Your task to perform on an android device: turn off picture-in-picture Image 0: 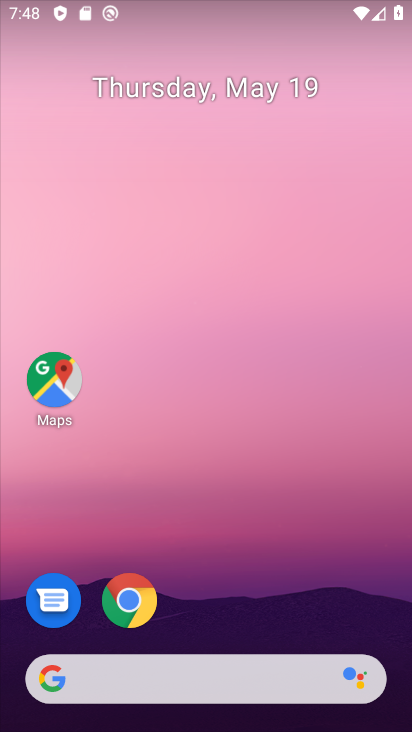
Step 0: drag from (319, 607) to (306, 107)
Your task to perform on an android device: turn off picture-in-picture Image 1: 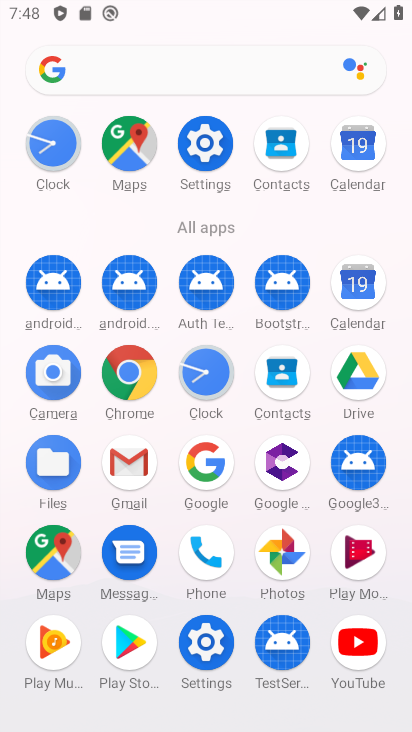
Step 1: click (200, 154)
Your task to perform on an android device: turn off picture-in-picture Image 2: 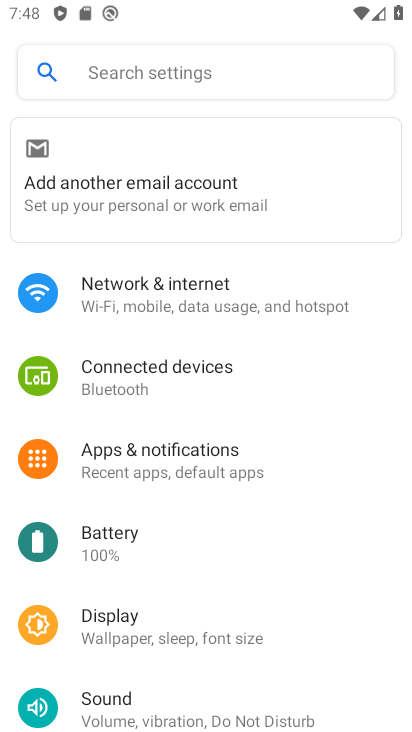
Step 2: click (214, 474)
Your task to perform on an android device: turn off picture-in-picture Image 3: 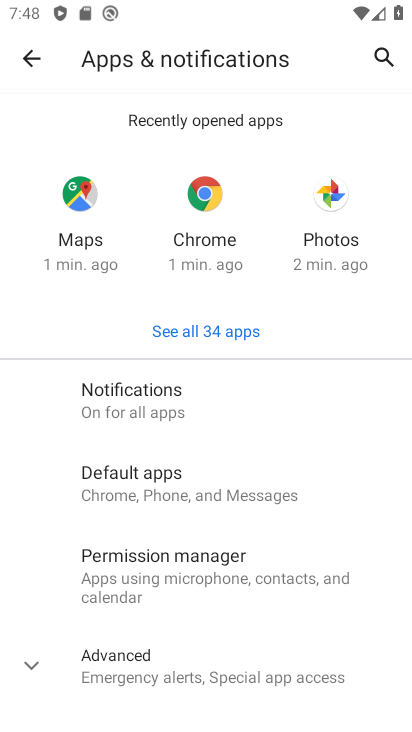
Step 3: click (155, 650)
Your task to perform on an android device: turn off picture-in-picture Image 4: 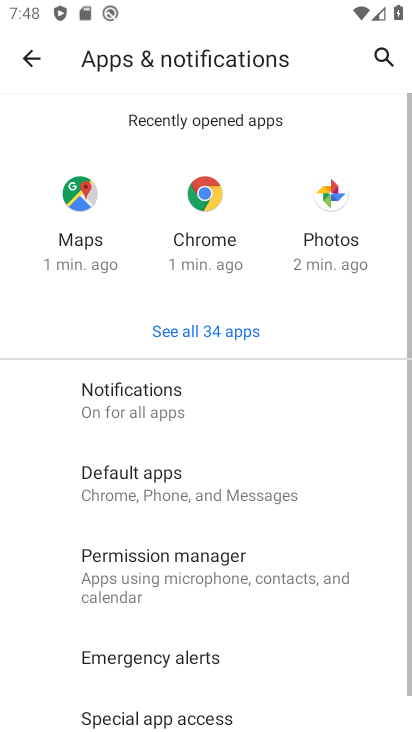
Step 4: drag from (248, 621) to (239, 428)
Your task to perform on an android device: turn off picture-in-picture Image 5: 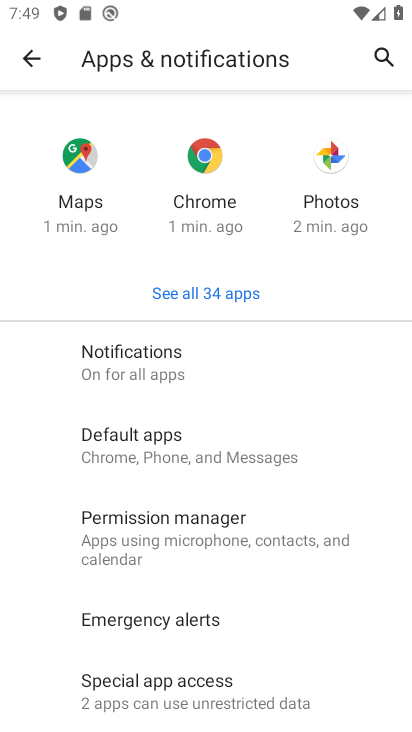
Step 5: click (163, 342)
Your task to perform on an android device: turn off picture-in-picture Image 6: 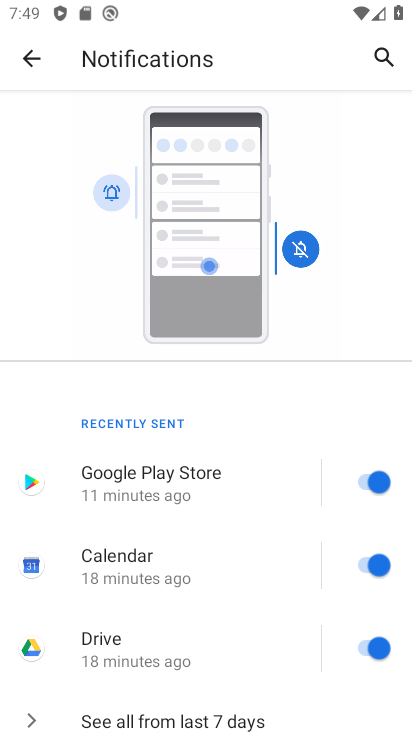
Step 6: drag from (233, 573) to (234, 354)
Your task to perform on an android device: turn off picture-in-picture Image 7: 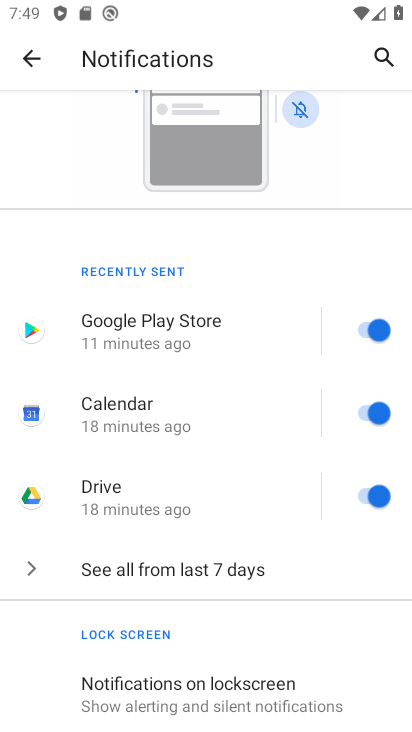
Step 7: drag from (201, 598) to (198, 244)
Your task to perform on an android device: turn off picture-in-picture Image 8: 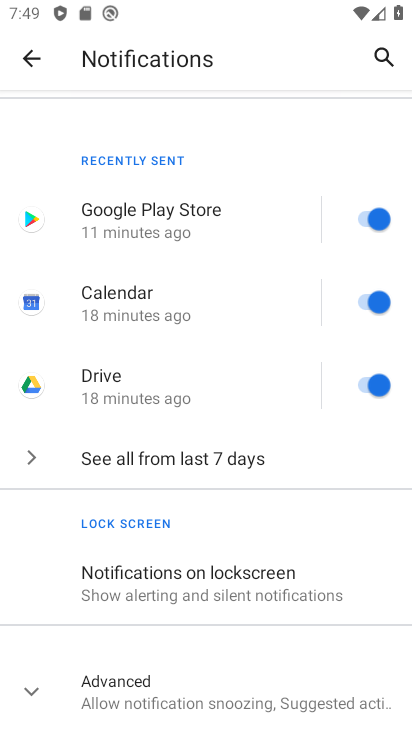
Step 8: click (168, 685)
Your task to perform on an android device: turn off picture-in-picture Image 9: 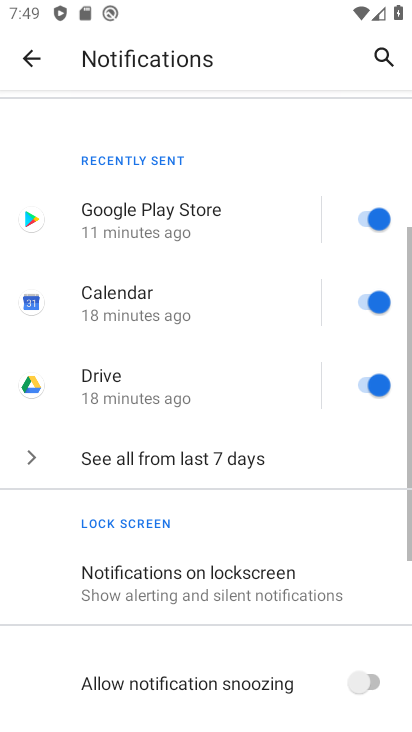
Step 9: drag from (236, 617) to (200, 145)
Your task to perform on an android device: turn off picture-in-picture Image 10: 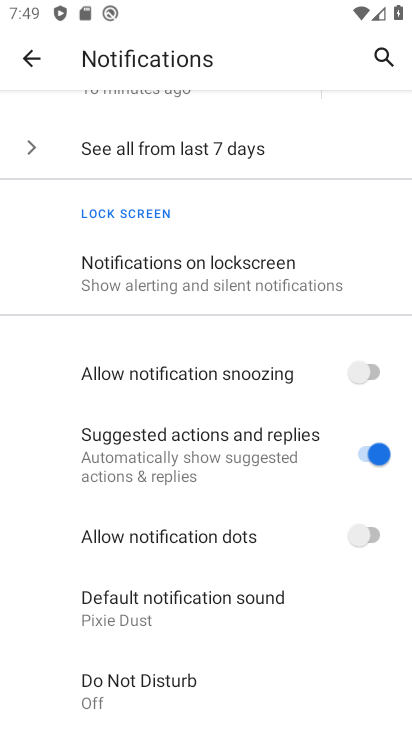
Step 10: drag from (255, 643) to (218, 30)
Your task to perform on an android device: turn off picture-in-picture Image 11: 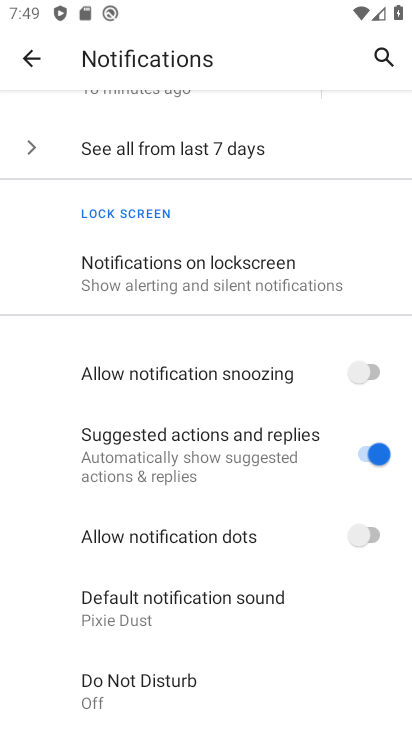
Step 11: click (50, 157)
Your task to perform on an android device: turn off picture-in-picture Image 12: 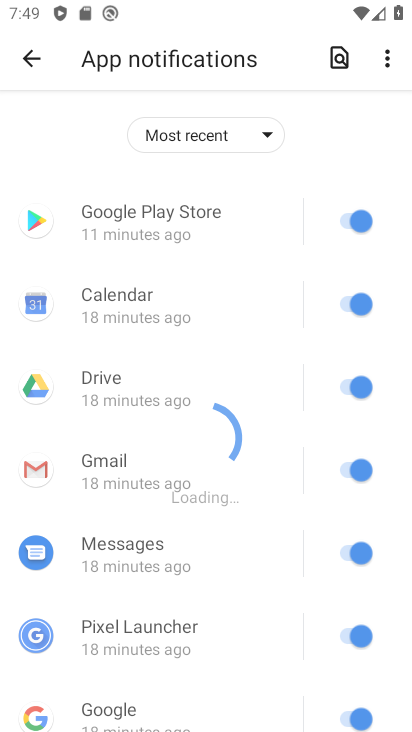
Step 12: click (44, 68)
Your task to perform on an android device: turn off picture-in-picture Image 13: 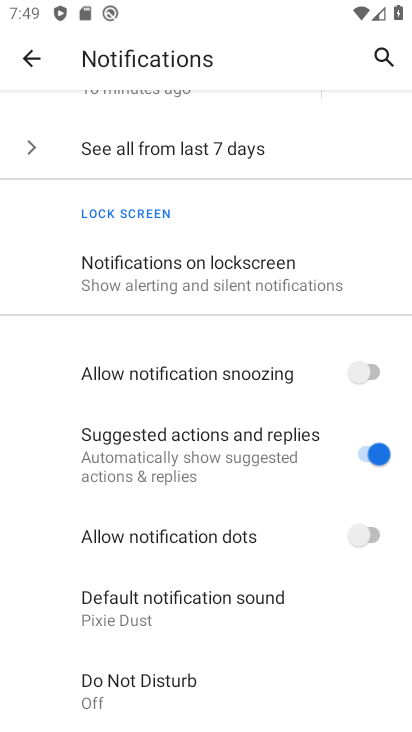
Step 13: click (20, 46)
Your task to perform on an android device: turn off picture-in-picture Image 14: 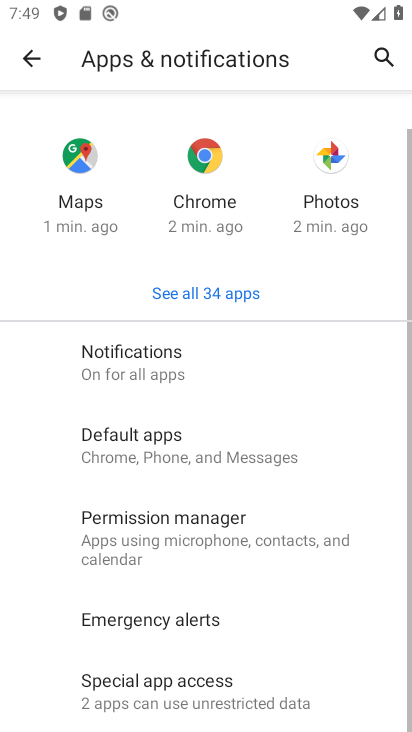
Step 14: click (198, 658)
Your task to perform on an android device: turn off picture-in-picture Image 15: 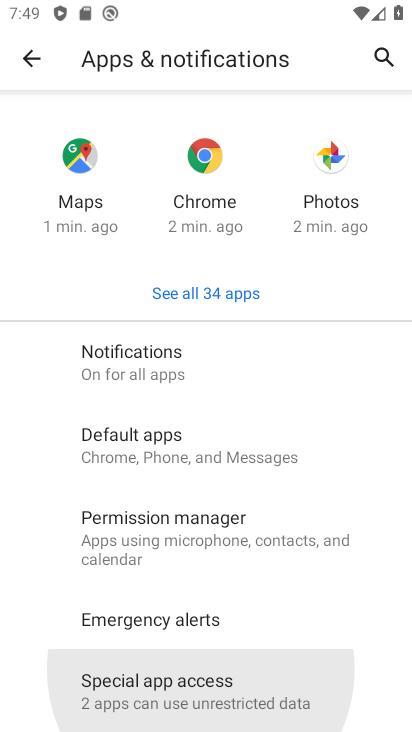
Step 15: click (198, 658)
Your task to perform on an android device: turn off picture-in-picture Image 16: 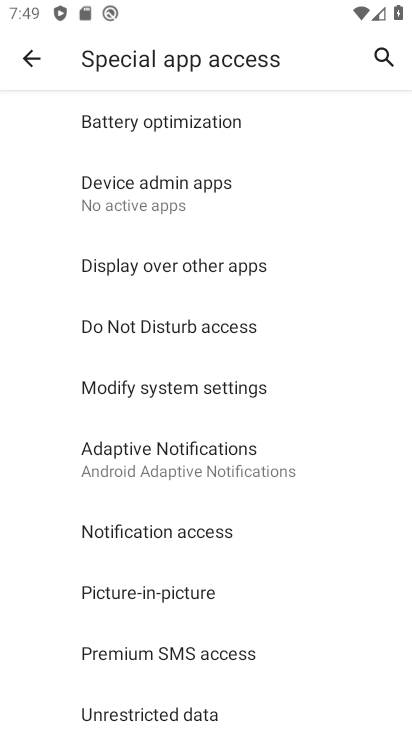
Step 16: click (184, 597)
Your task to perform on an android device: turn off picture-in-picture Image 17: 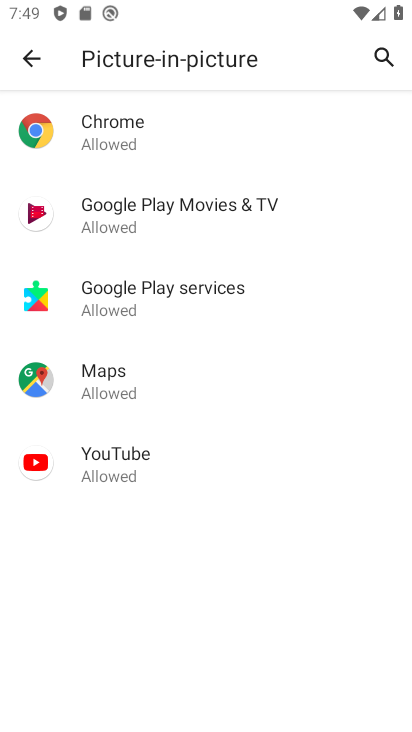
Step 17: click (328, 132)
Your task to perform on an android device: turn off picture-in-picture Image 18: 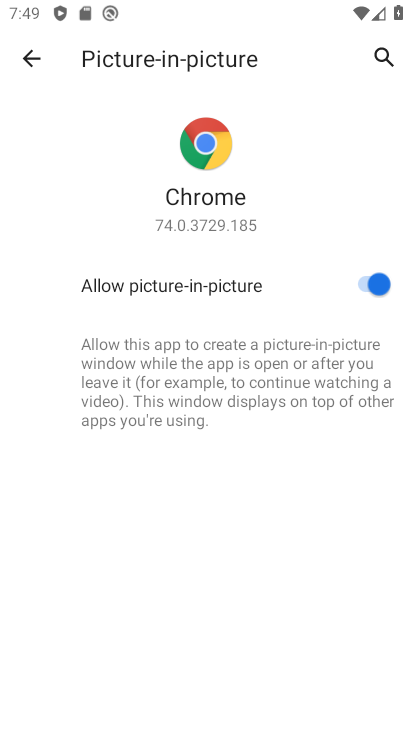
Step 18: click (355, 312)
Your task to perform on an android device: turn off picture-in-picture Image 19: 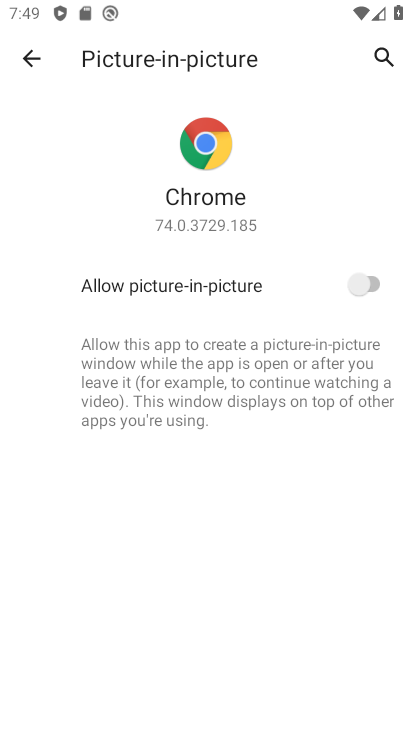
Step 19: task complete